Your task to perform on an android device: turn off javascript in the chrome app Image 0: 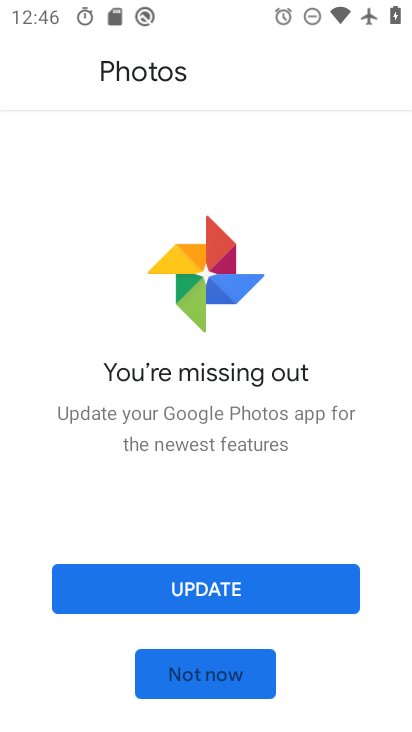
Step 0: press home button
Your task to perform on an android device: turn off javascript in the chrome app Image 1: 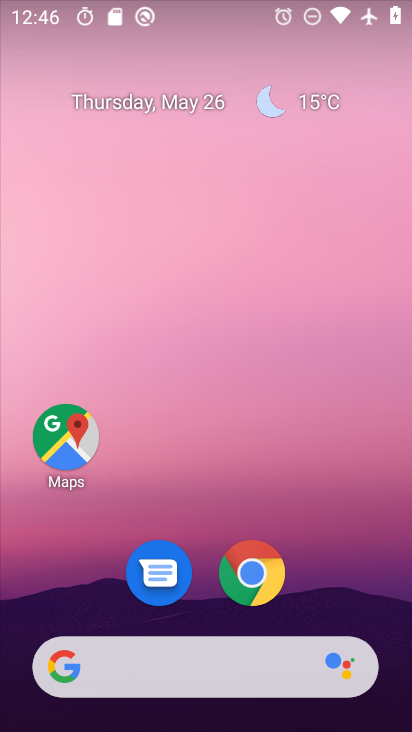
Step 1: click (258, 577)
Your task to perform on an android device: turn off javascript in the chrome app Image 2: 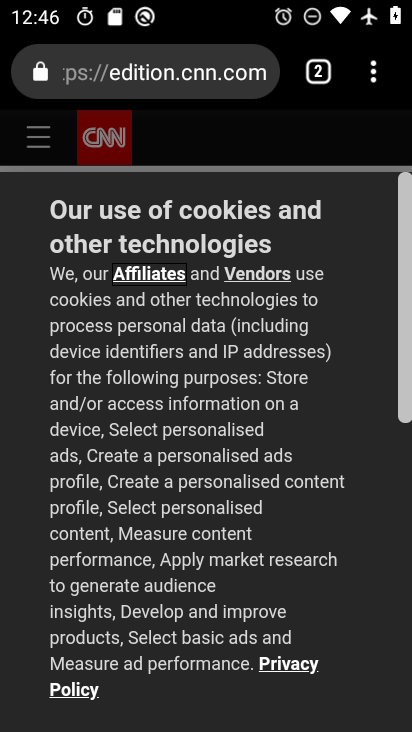
Step 2: click (375, 78)
Your task to perform on an android device: turn off javascript in the chrome app Image 3: 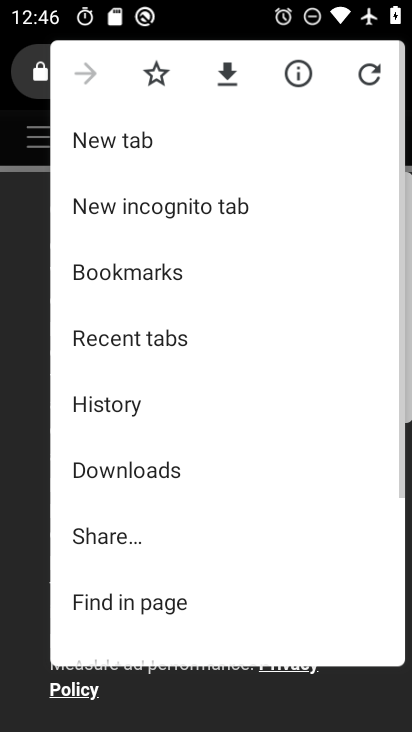
Step 3: drag from (210, 564) to (225, 103)
Your task to perform on an android device: turn off javascript in the chrome app Image 4: 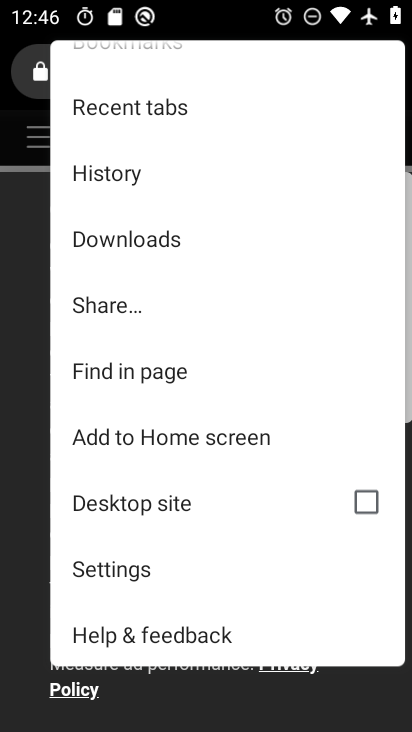
Step 4: click (74, 571)
Your task to perform on an android device: turn off javascript in the chrome app Image 5: 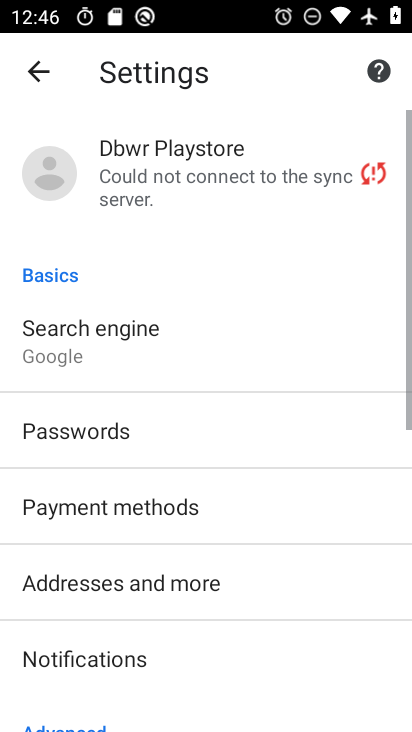
Step 5: drag from (229, 605) to (245, 155)
Your task to perform on an android device: turn off javascript in the chrome app Image 6: 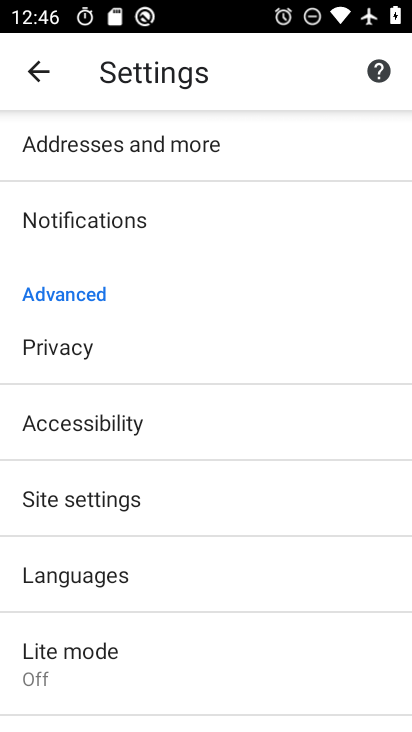
Step 6: click (76, 503)
Your task to perform on an android device: turn off javascript in the chrome app Image 7: 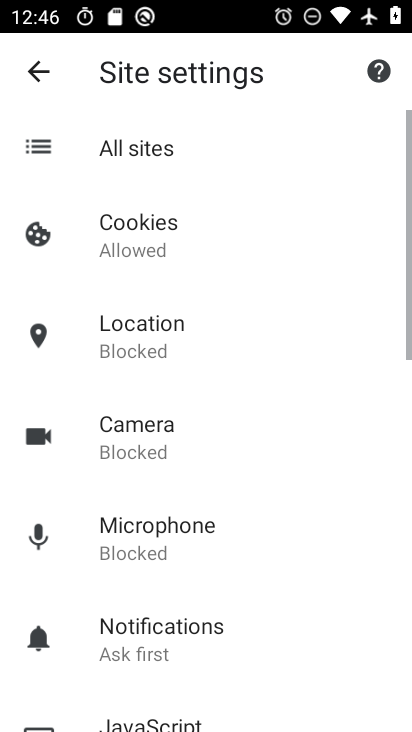
Step 7: drag from (304, 623) to (290, 257)
Your task to perform on an android device: turn off javascript in the chrome app Image 8: 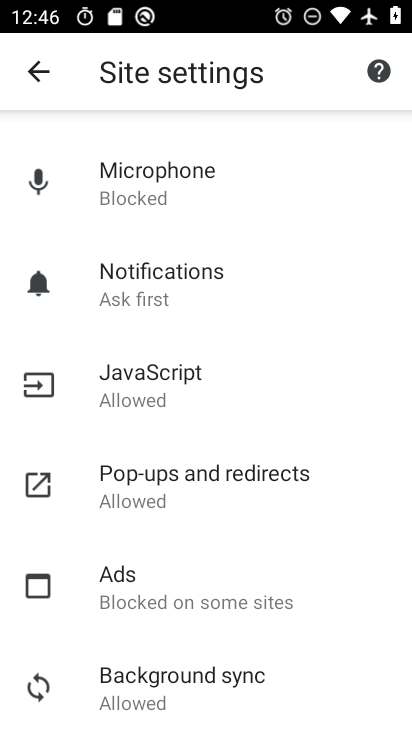
Step 8: click (149, 399)
Your task to perform on an android device: turn off javascript in the chrome app Image 9: 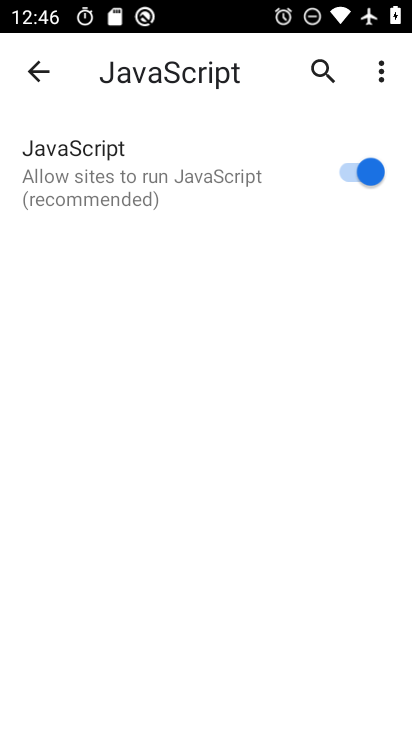
Step 9: click (372, 172)
Your task to perform on an android device: turn off javascript in the chrome app Image 10: 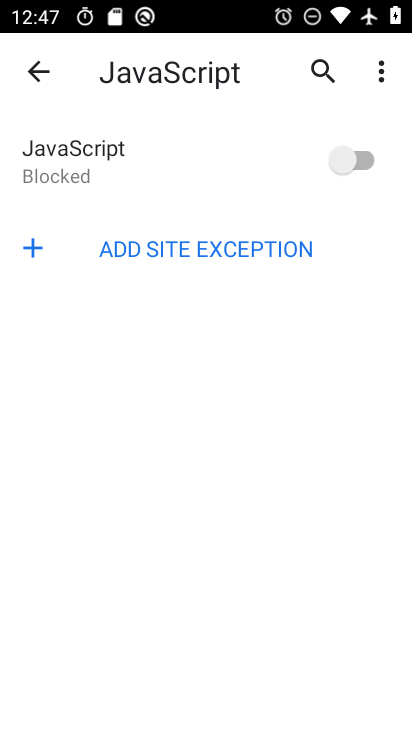
Step 10: task complete